Your task to perform on an android device: Open Chrome and go to the settings page Image 0: 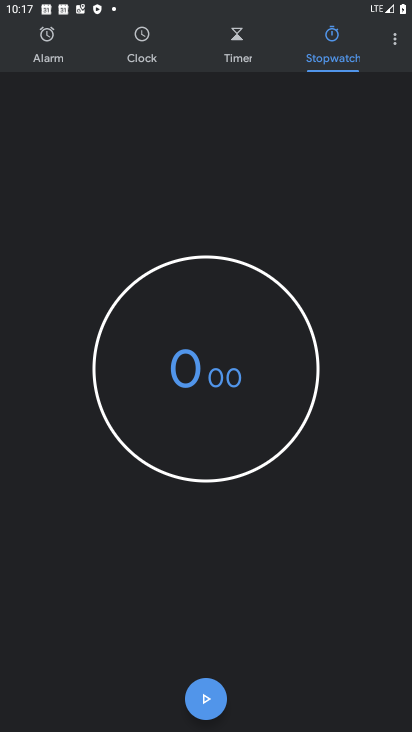
Step 0: press home button
Your task to perform on an android device: Open Chrome and go to the settings page Image 1: 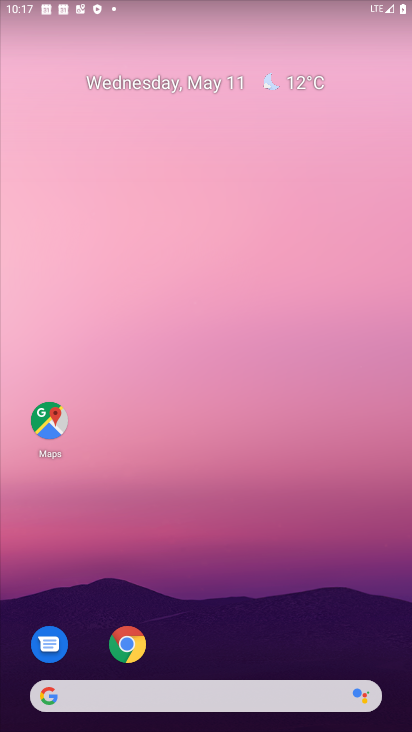
Step 1: click (314, 555)
Your task to perform on an android device: Open Chrome and go to the settings page Image 2: 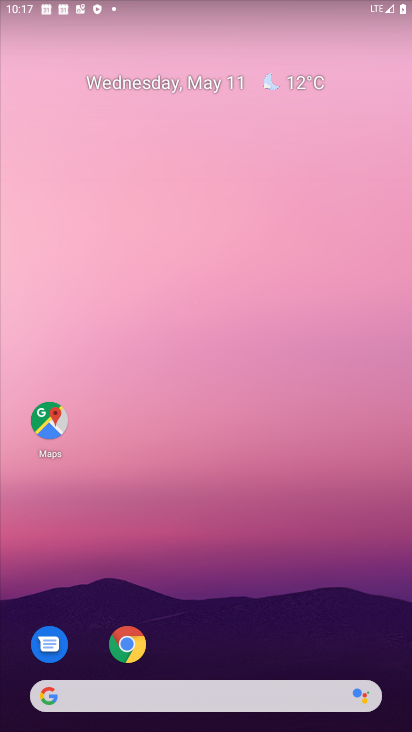
Step 2: click (118, 649)
Your task to perform on an android device: Open Chrome and go to the settings page Image 3: 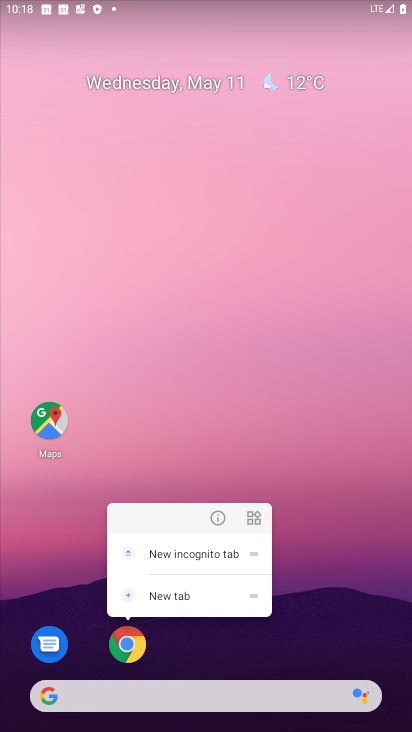
Step 3: click (358, 638)
Your task to perform on an android device: Open Chrome and go to the settings page Image 4: 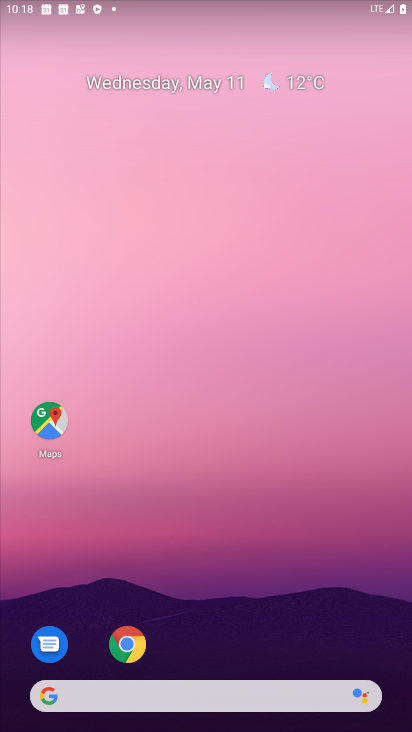
Step 4: click (140, 647)
Your task to perform on an android device: Open Chrome and go to the settings page Image 5: 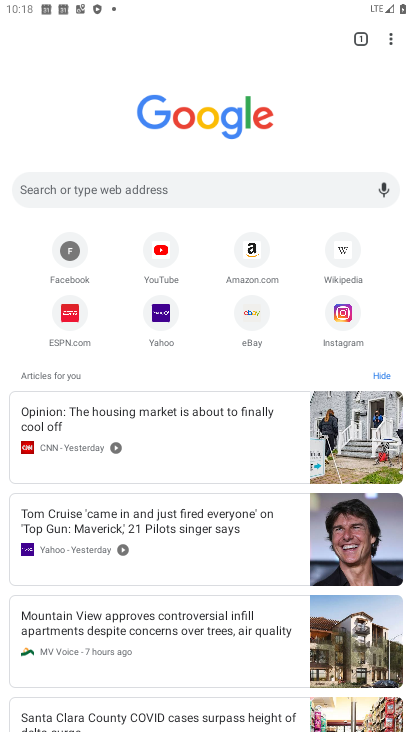
Step 5: click (403, 36)
Your task to perform on an android device: Open Chrome and go to the settings page Image 6: 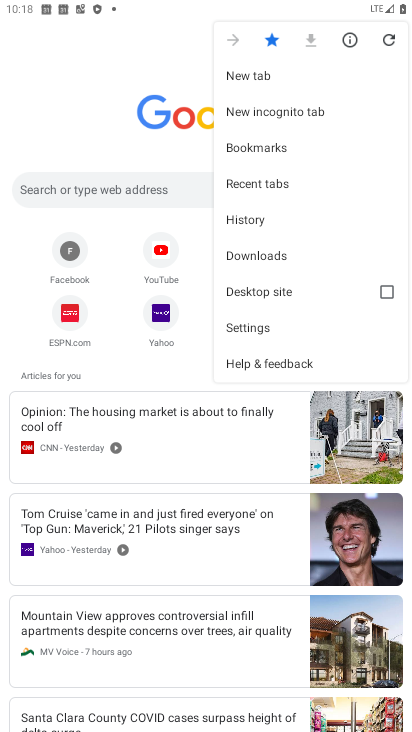
Step 6: click (312, 326)
Your task to perform on an android device: Open Chrome and go to the settings page Image 7: 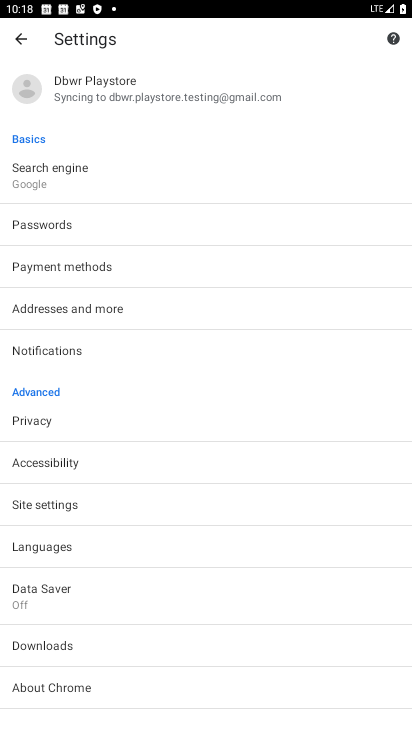
Step 7: task complete